Your task to perform on an android device: find snoozed emails in the gmail app Image 0: 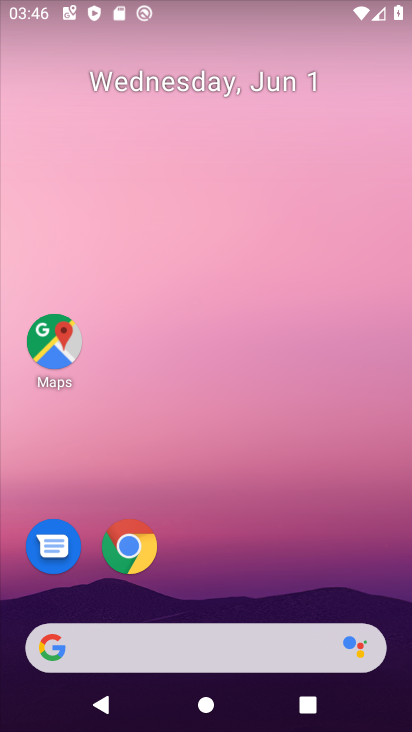
Step 0: drag from (368, 585) to (340, 1)
Your task to perform on an android device: find snoozed emails in the gmail app Image 1: 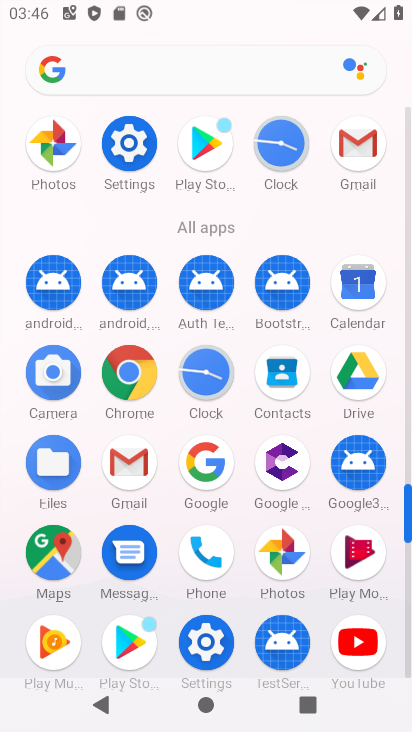
Step 1: click (355, 137)
Your task to perform on an android device: find snoozed emails in the gmail app Image 2: 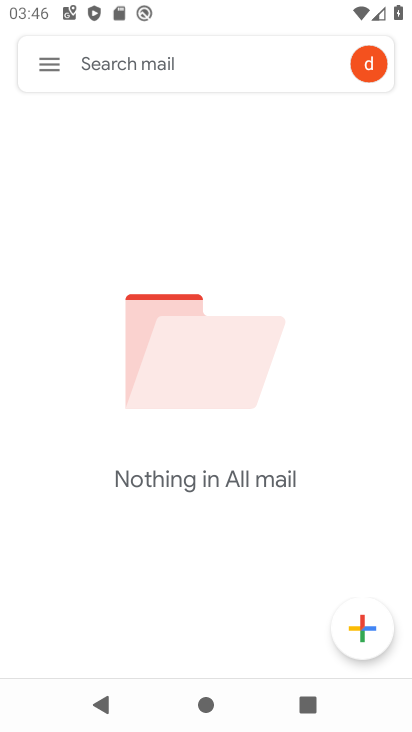
Step 2: click (46, 73)
Your task to perform on an android device: find snoozed emails in the gmail app Image 3: 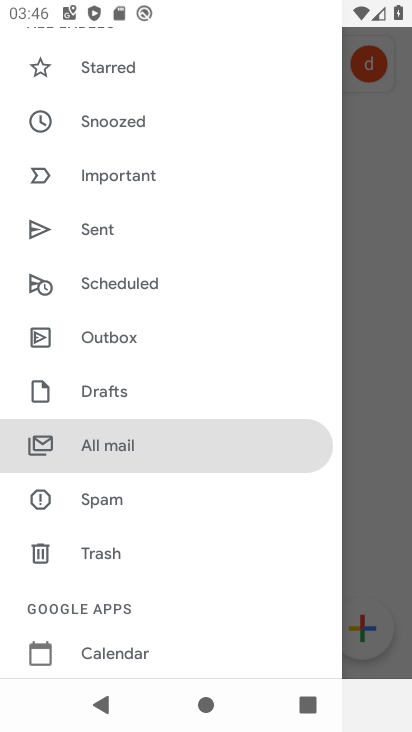
Step 3: click (151, 125)
Your task to perform on an android device: find snoozed emails in the gmail app Image 4: 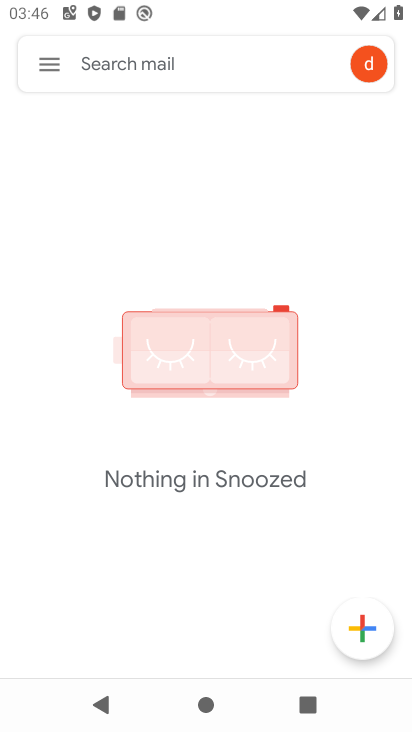
Step 4: task complete